Your task to perform on an android device: Open the calendar and show me this week's events? Image 0: 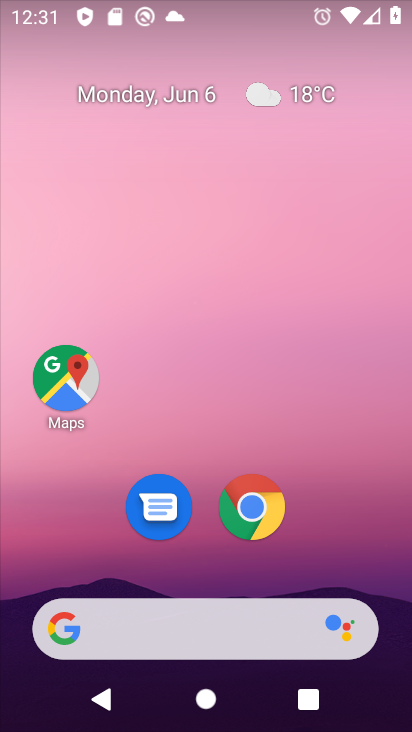
Step 0: drag from (281, 137) to (295, 13)
Your task to perform on an android device: Open the calendar and show me this week's events? Image 1: 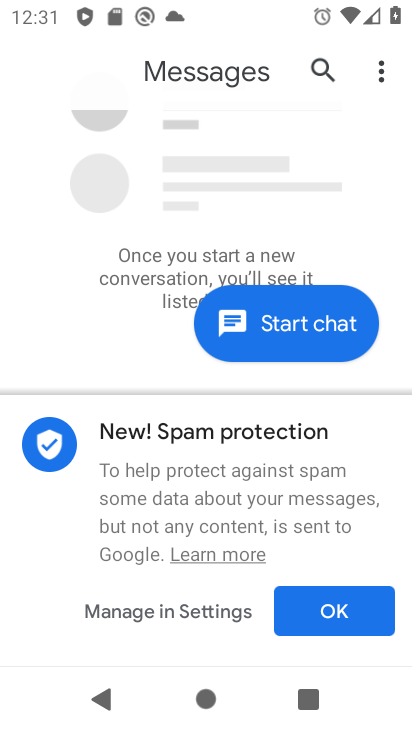
Step 1: press home button
Your task to perform on an android device: Open the calendar and show me this week's events? Image 2: 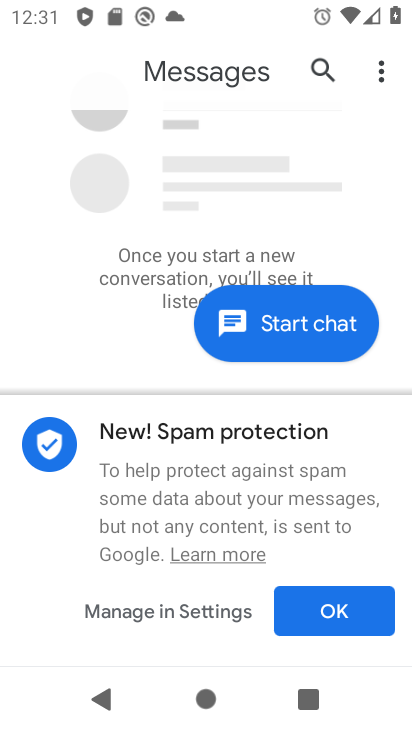
Step 2: drag from (295, 13) to (403, 340)
Your task to perform on an android device: Open the calendar and show me this week's events? Image 3: 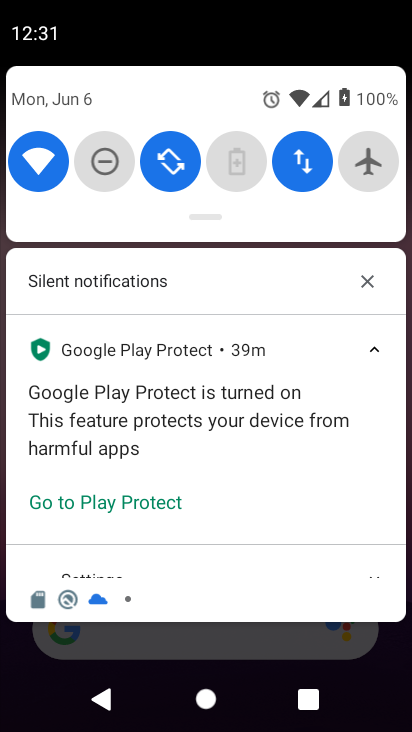
Step 3: drag from (216, 548) to (288, 106)
Your task to perform on an android device: Open the calendar and show me this week's events? Image 4: 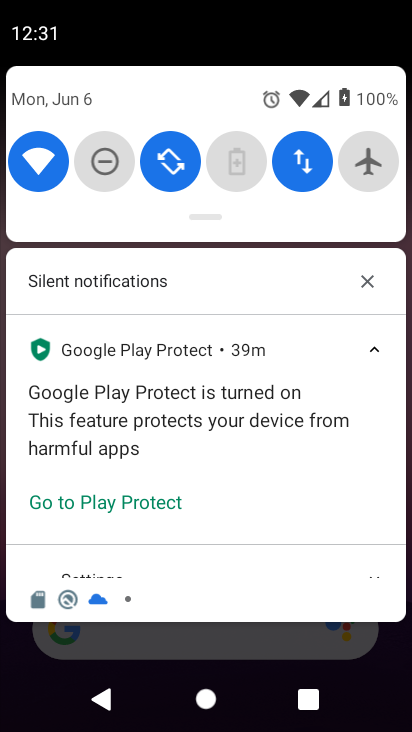
Step 4: drag from (228, 638) to (311, 127)
Your task to perform on an android device: Open the calendar and show me this week's events? Image 5: 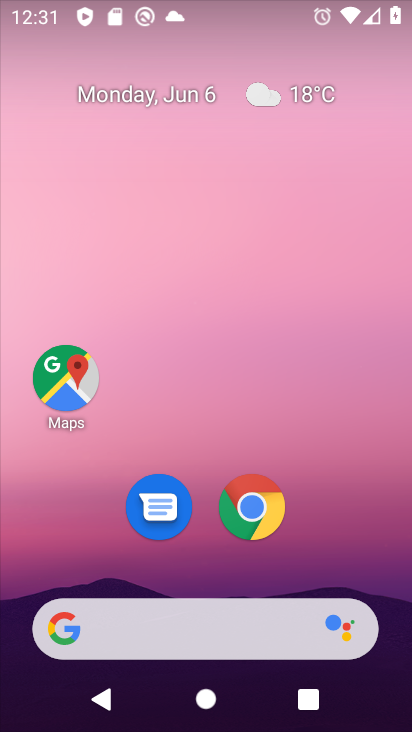
Step 5: drag from (229, 555) to (241, 124)
Your task to perform on an android device: Open the calendar and show me this week's events? Image 6: 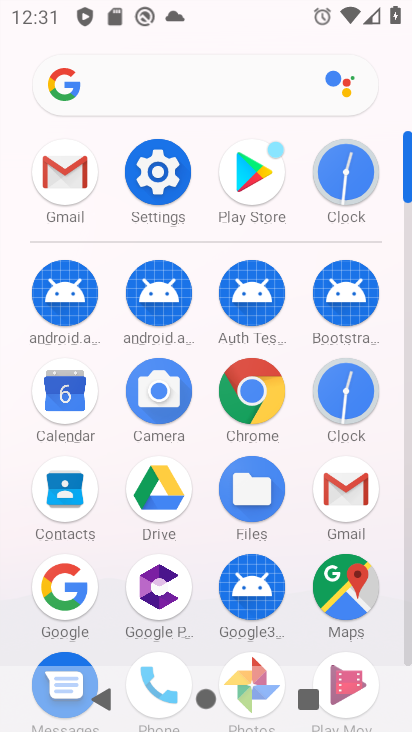
Step 6: click (66, 402)
Your task to perform on an android device: Open the calendar and show me this week's events? Image 7: 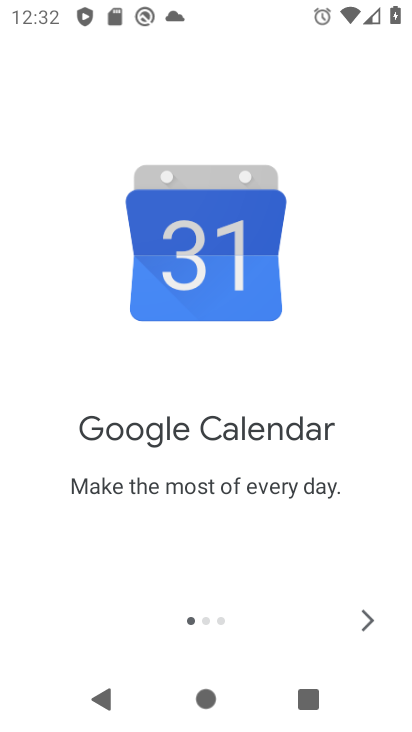
Step 7: click (379, 623)
Your task to perform on an android device: Open the calendar and show me this week's events? Image 8: 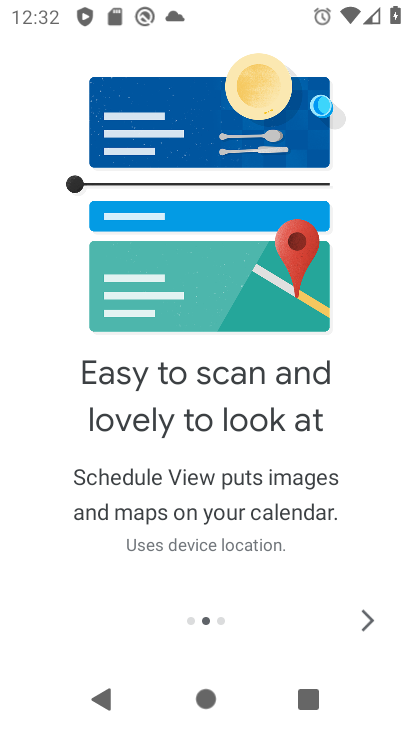
Step 8: click (375, 608)
Your task to perform on an android device: Open the calendar and show me this week's events? Image 9: 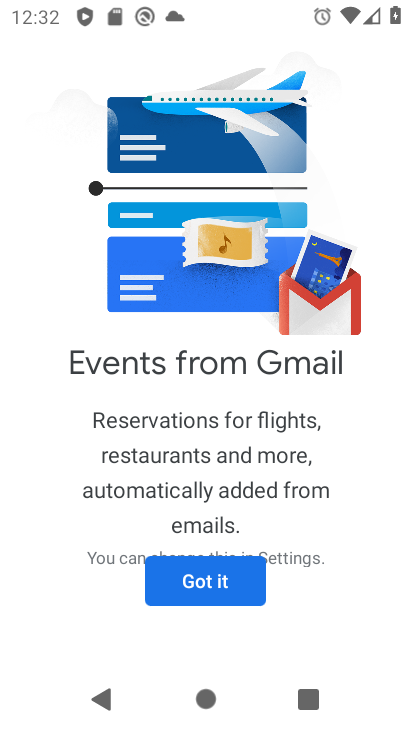
Step 9: click (198, 572)
Your task to perform on an android device: Open the calendar and show me this week's events? Image 10: 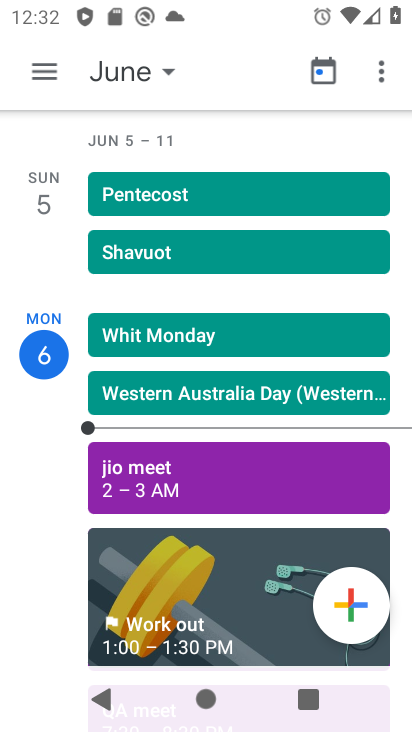
Step 10: click (56, 78)
Your task to perform on an android device: Open the calendar and show me this week's events? Image 11: 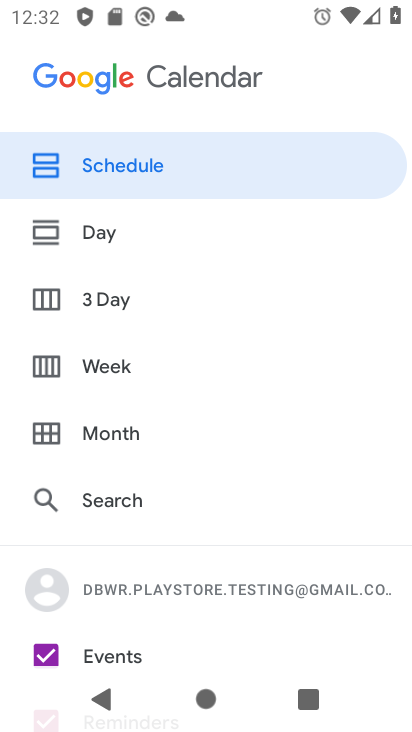
Step 11: click (122, 371)
Your task to perform on an android device: Open the calendar and show me this week's events? Image 12: 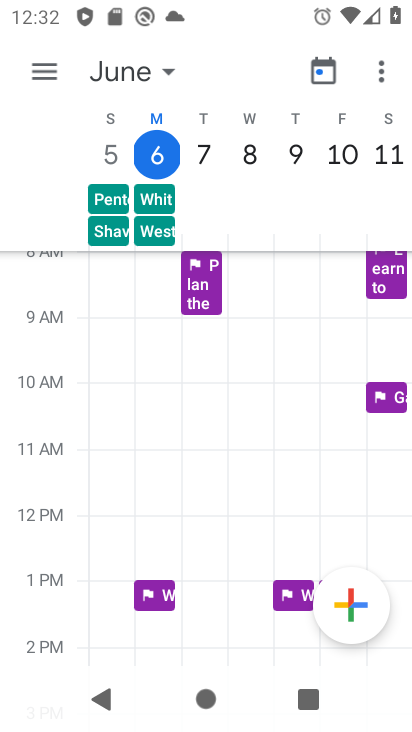
Step 12: click (43, 69)
Your task to perform on an android device: Open the calendar and show me this week's events? Image 13: 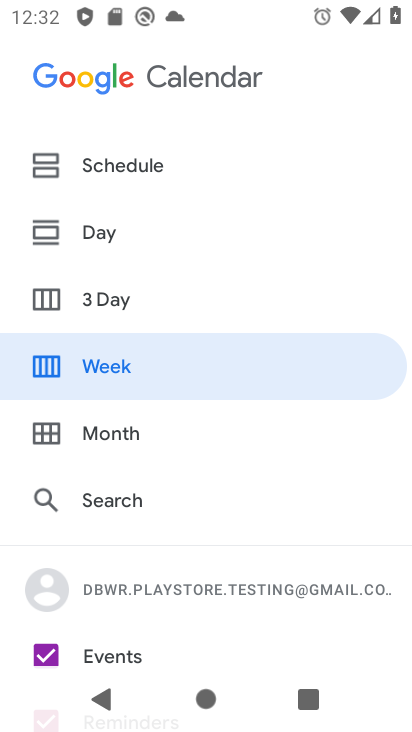
Step 13: drag from (147, 545) to (219, 217)
Your task to perform on an android device: Open the calendar and show me this week's events? Image 14: 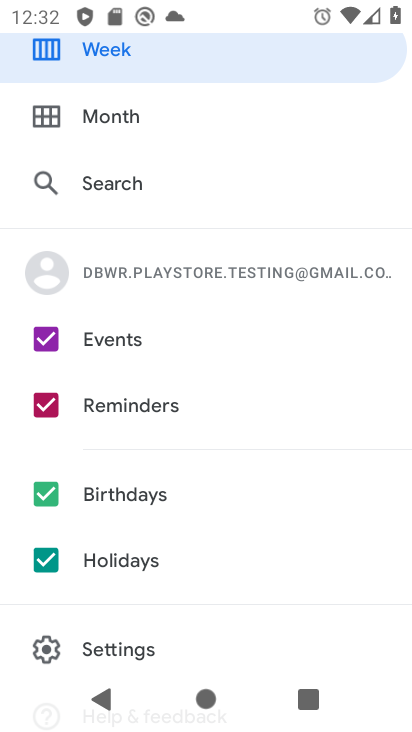
Step 14: click (121, 419)
Your task to perform on an android device: Open the calendar and show me this week's events? Image 15: 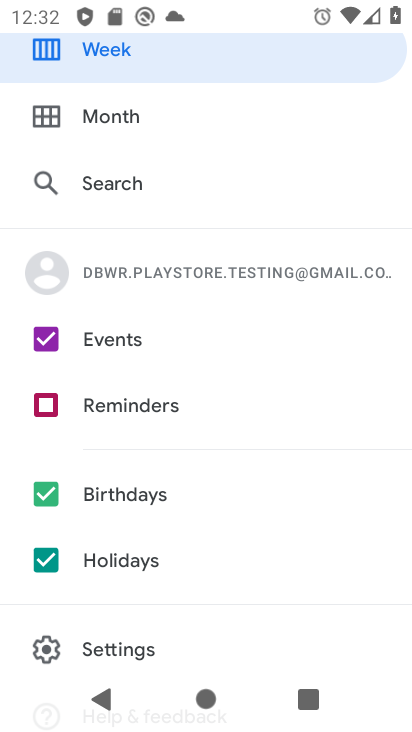
Step 15: click (119, 490)
Your task to perform on an android device: Open the calendar and show me this week's events? Image 16: 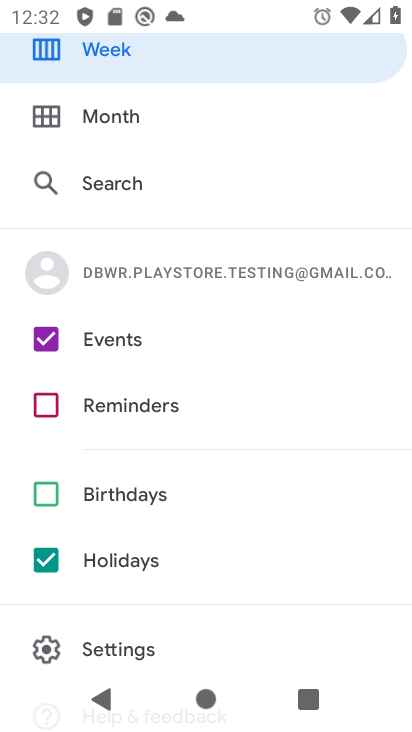
Step 16: click (92, 566)
Your task to perform on an android device: Open the calendar and show me this week's events? Image 17: 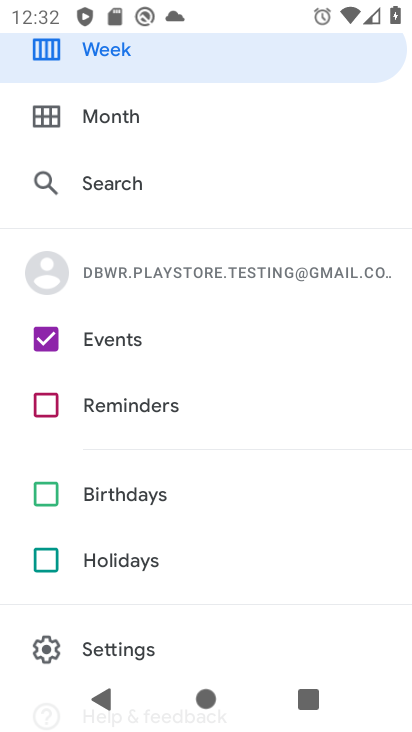
Step 17: task complete